Your task to perform on an android device: Open Google Image 0: 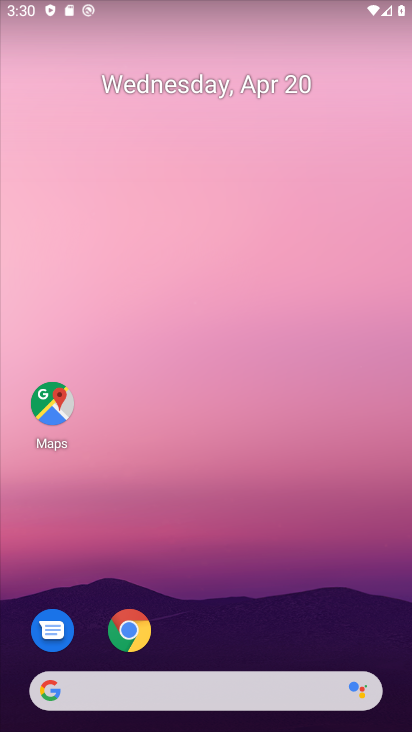
Step 0: drag from (200, 634) to (203, 225)
Your task to perform on an android device: Open Google Image 1: 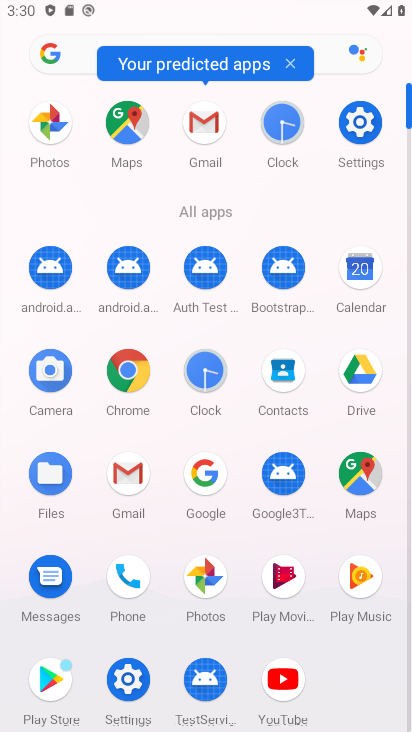
Step 1: click (199, 473)
Your task to perform on an android device: Open Google Image 2: 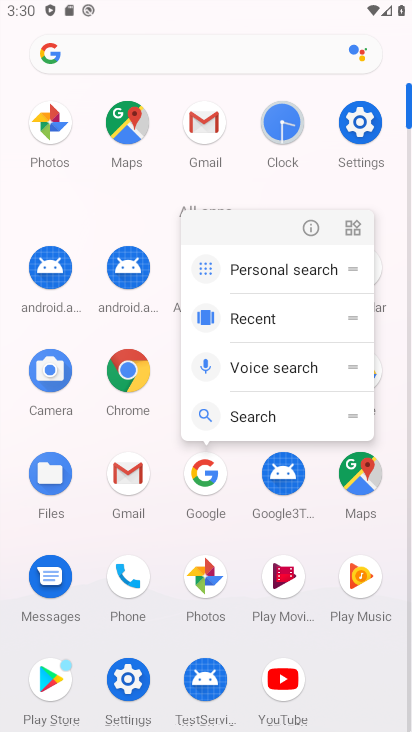
Step 2: click (202, 476)
Your task to perform on an android device: Open Google Image 3: 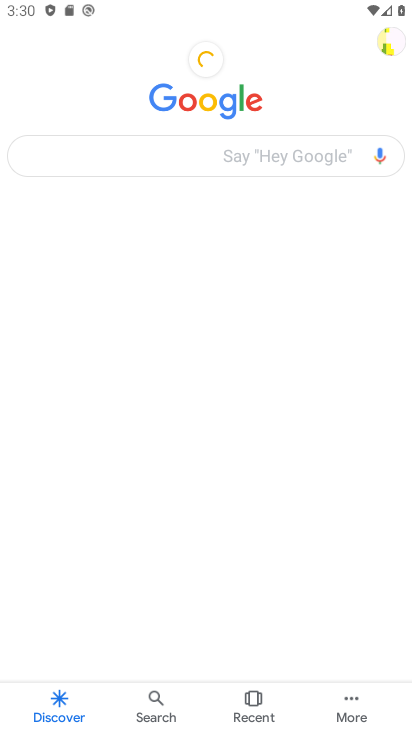
Step 3: task complete